Your task to perform on an android device: Open Google Chrome and click the shortcut for Amazon.com Image 0: 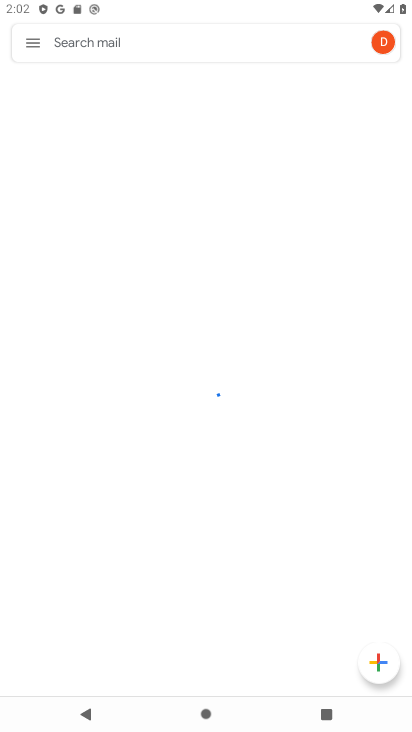
Step 0: press home button
Your task to perform on an android device: Open Google Chrome and click the shortcut for Amazon.com Image 1: 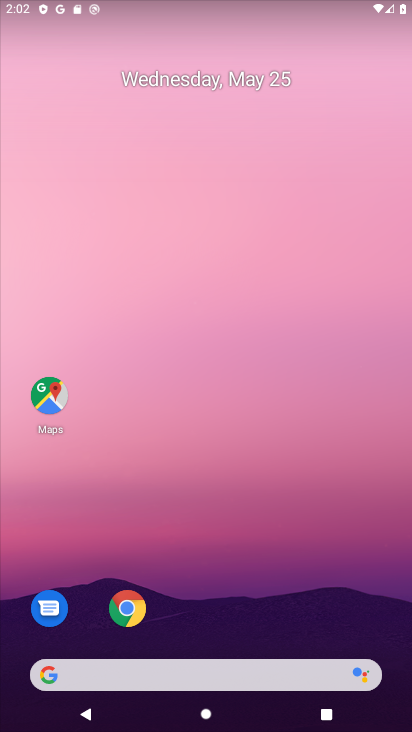
Step 1: click (137, 607)
Your task to perform on an android device: Open Google Chrome and click the shortcut for Amazon.com Image 2: 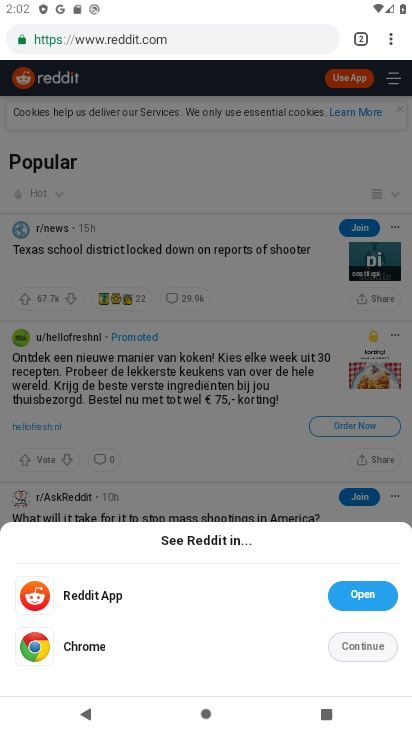
Step 2: click (392, 32)
Your task to perform on an android device: Open Google Chrome and click the shortcut for Amazon.com Image 3: 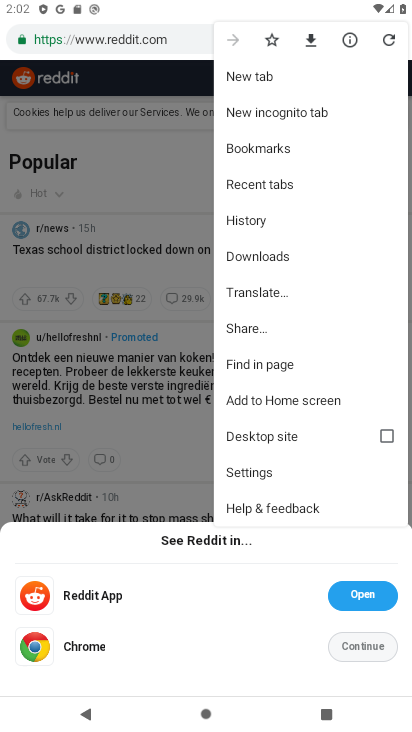
Step 3: click (277, 81)
Your task to perform on an android device: Open Google Chrome and click the shortcut for Amazon.com Image 4: 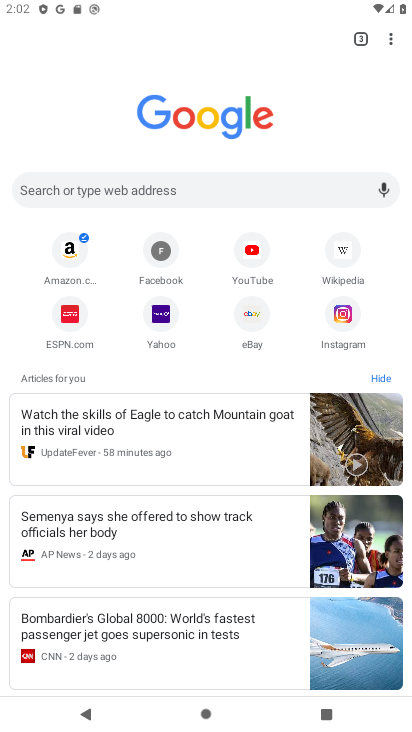
Step 4: click (69, 255)
Your task to perform on an android device: Open Google Chrome and click the shortcut for Amazon.com Image 5: 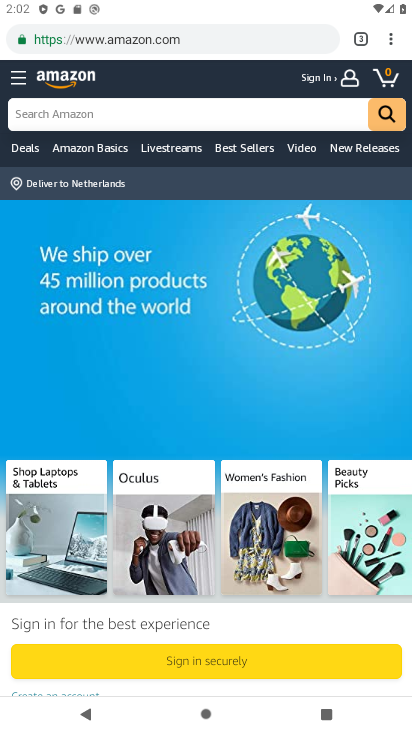
Step 5: task complete